Your task to perform on an android device: open app "Facebook" Image 0: 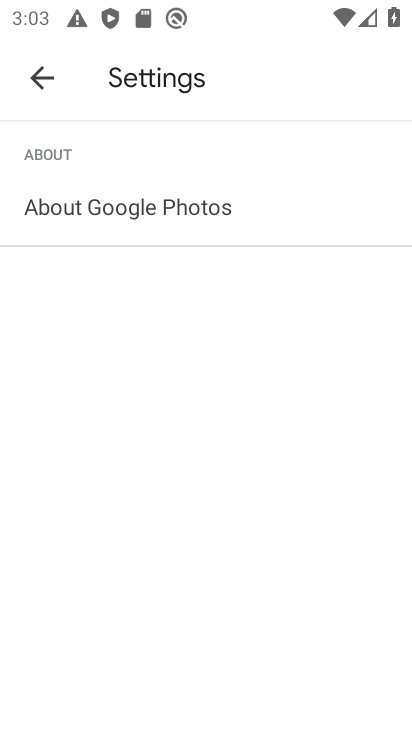
Step 0: press home button
Your task to perform on an android device: open app "Facebook" Image 1: 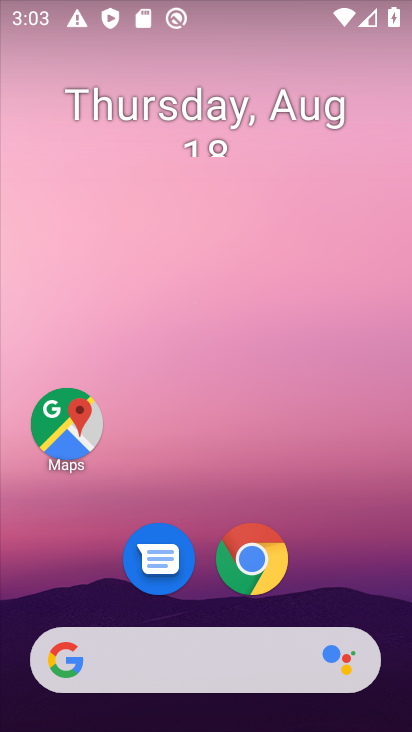
Step 1: drag from (329, 515) to (136, 10)
Your task to perform on an android device: open app "Facebook" Image 2: 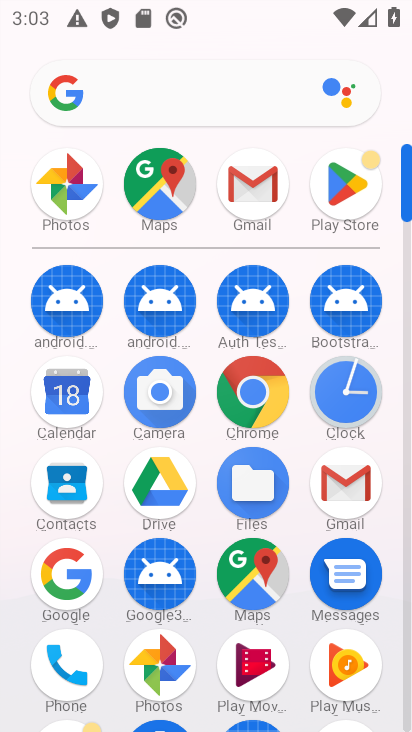
Step 2: click (331, 194)
Your task to perform on an android device: open app "Facebook" Image 3: 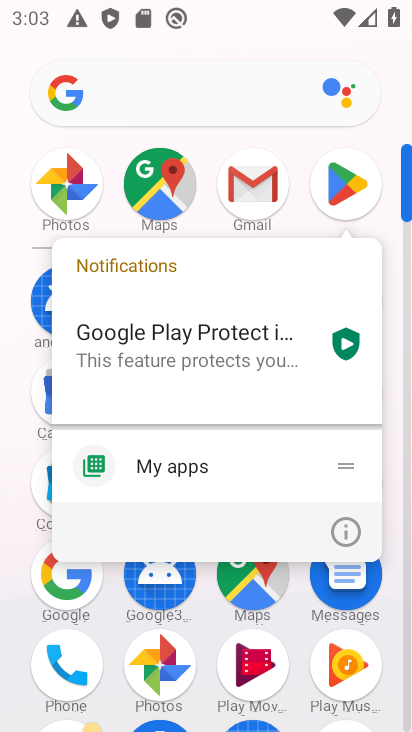
Step 3: click (331, 194)
Your task to perform on an android device: open app "Facebook" Image 4: 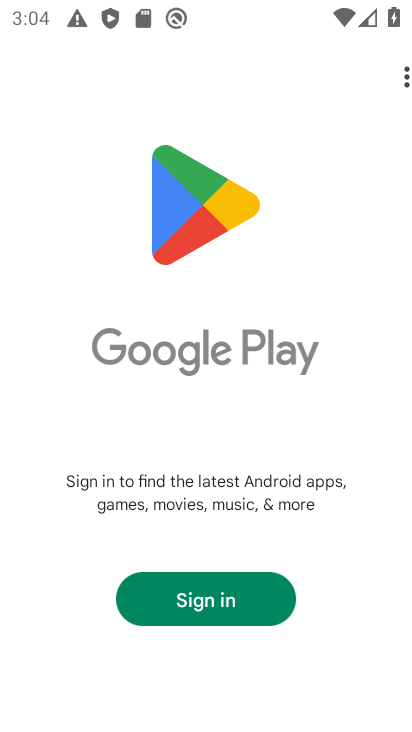
Step 4: click (169, 616)
Your task to perform on an android device: open app "Facebook" Image 5: 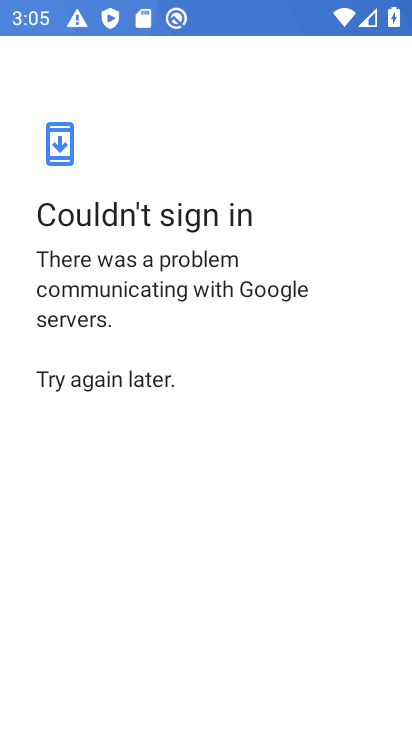
Step 5: task complete